Your task to perform on an android device: When is my next meeting? Image 0: 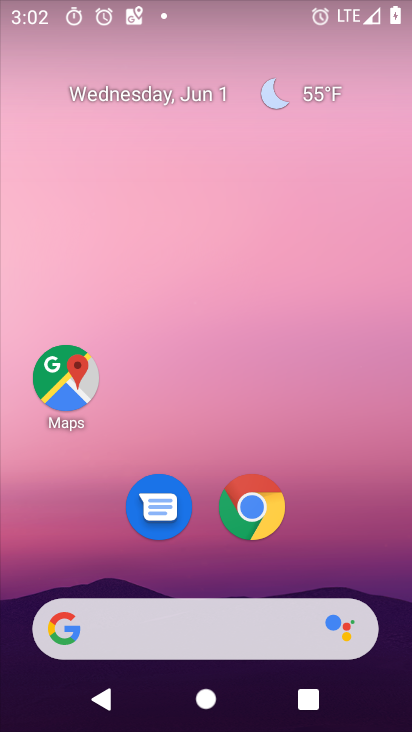
Step 0: drag from (360, 582) to (365, 0)
Your task to perform on an android device: When is my next meeting? Image 1: 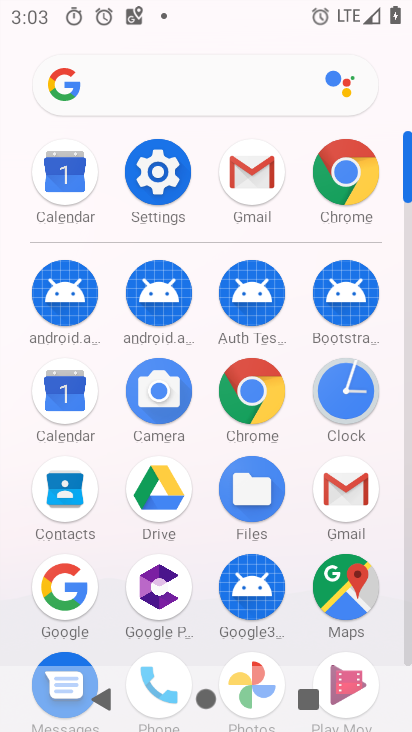
Step 1: click (63, 194)
Your task to perform on an android device: When is my next meeting? Image 2: 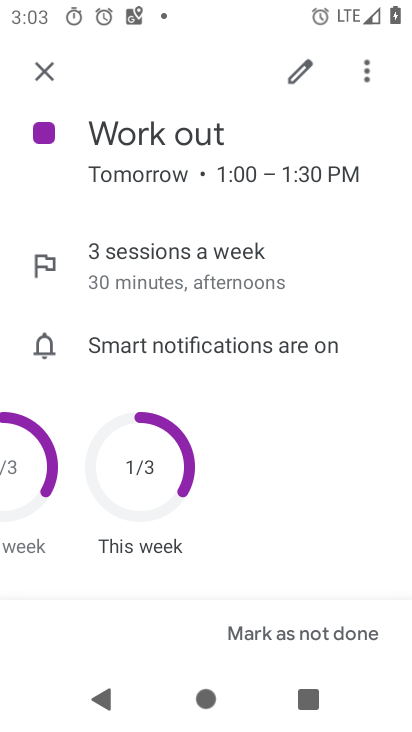
Step 2: click (41, 70)
Your task to perform on an android device: When is my next meeting? Image 3: 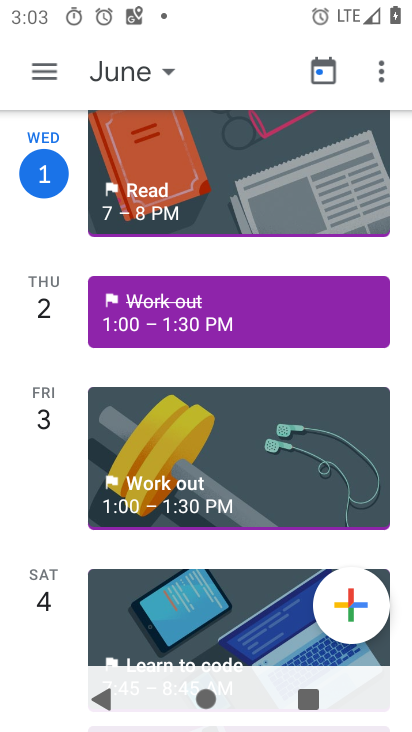
Step 3: drag from (243, 547) to (240, 208)
Your task to perform on an android device: When is my next meeting? Image 4: 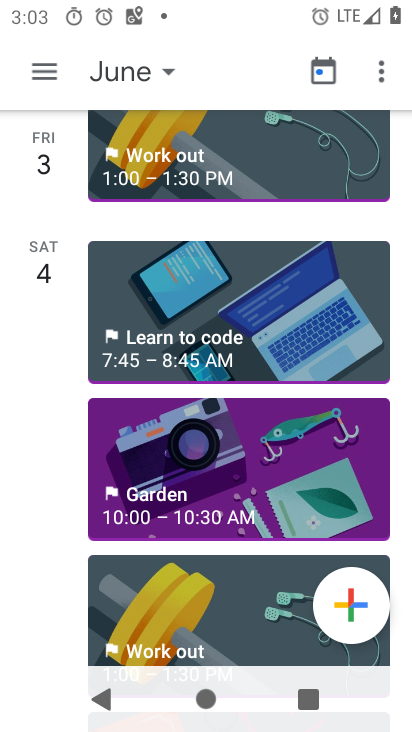
Step 4: drag from (194, 476) to (206, 126)
Your task to perform on an android device: When is my next meeting? Image 5: 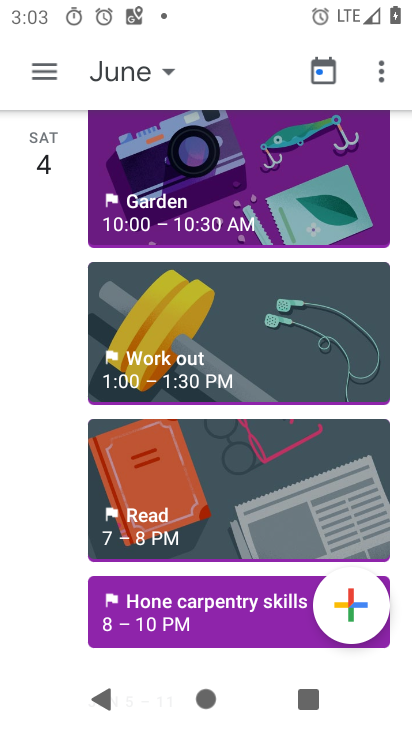
Step 5: drag from (208, 473) to (209, 203)
Your task to perform on an android device: When is my next meeting? Image 6: 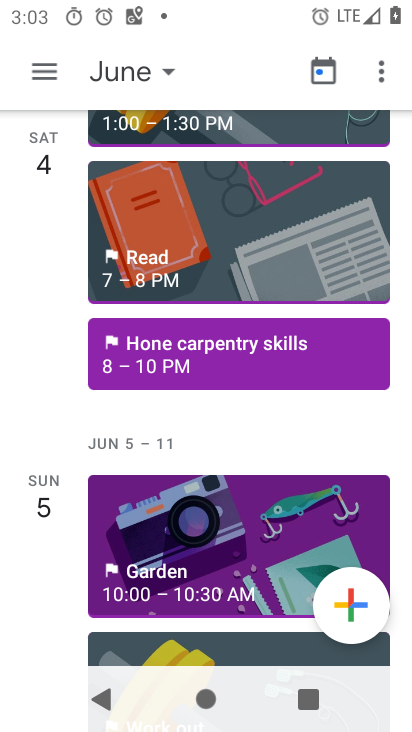
Step 6: drag from (191, 519) to (189, 145)
Your task to perform on an android device: When is my next meeting? Image 7: 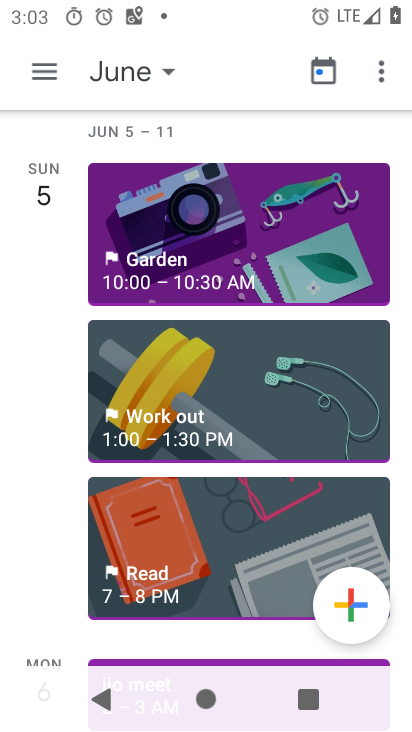
Step 7: drag from (188, 460) to (201, 201)
Your task to perform on an android device: When is my next meeting? Image 8: 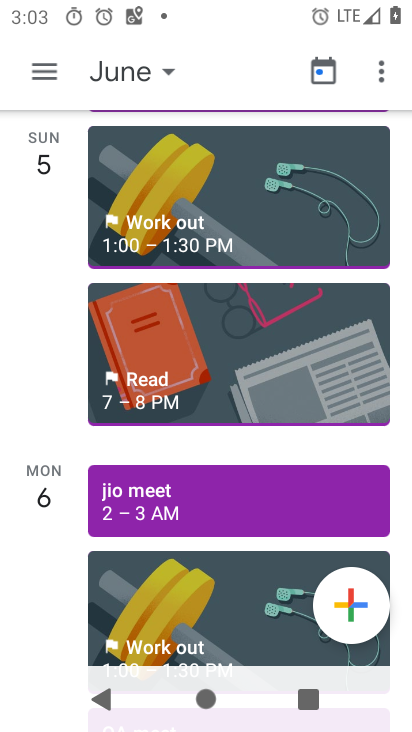
Step 8: click (173, 498)
Your task to perform on an android device: When is my next meeting? Image 9: 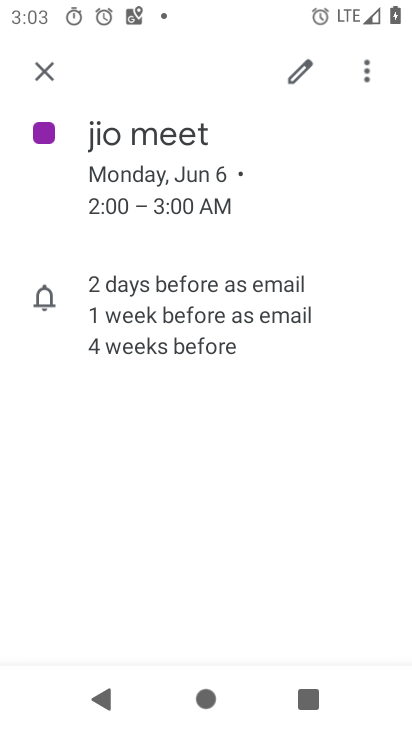
Step 9: task complete